Your task to perform on an android device: Open CNN.com Image 0: 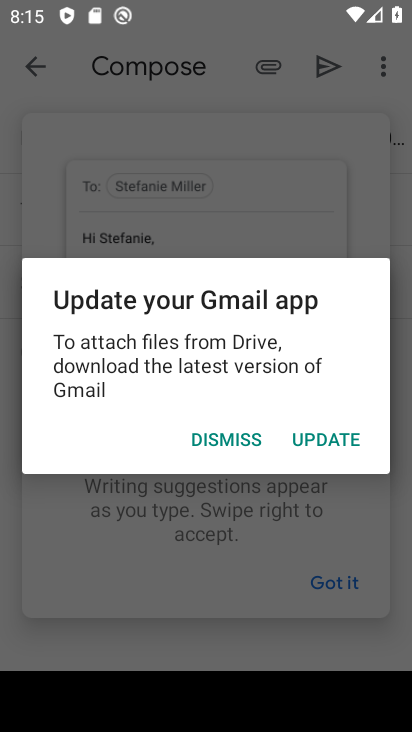
Step 0: press home button
Your task to perform on an android device: Open CNN.com Image 1: 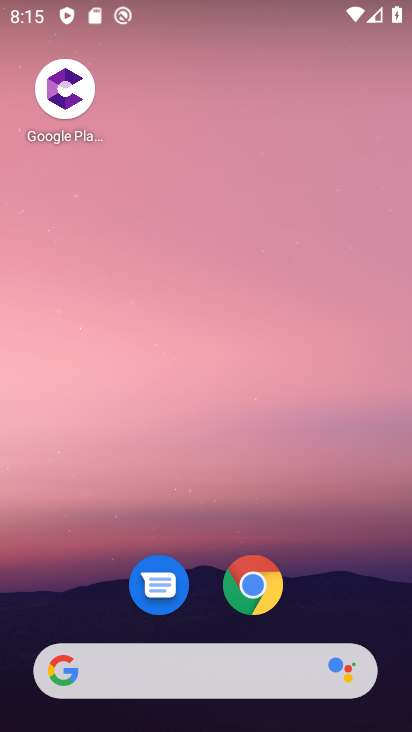
Step 1: click (248, 677)
Your task to perform on an android device: Open CNN.com Image 2: 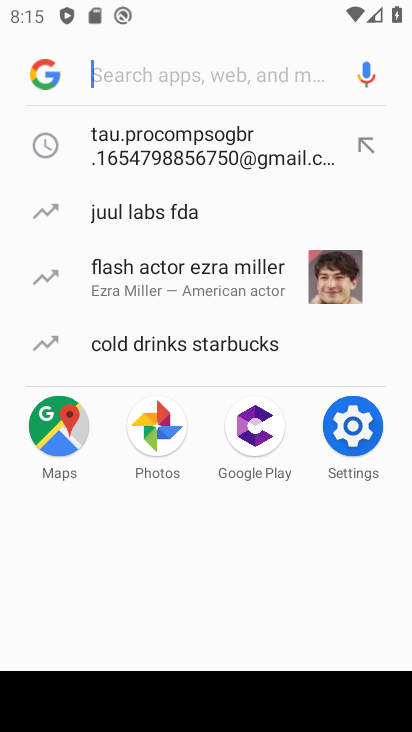
Step 2: type "cnn.com"
Your task to perform on an android device: Open CNN.com Image 3: 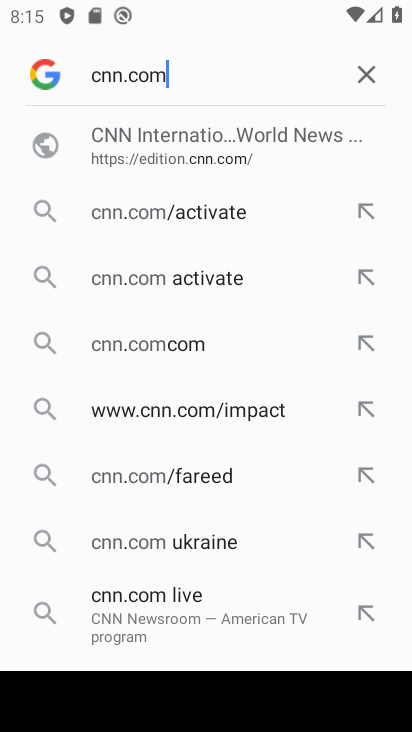
Step 3: drag from (138, 445) to (190, 177)
Your task to perform on an android device: Open CNN.com Image 4: 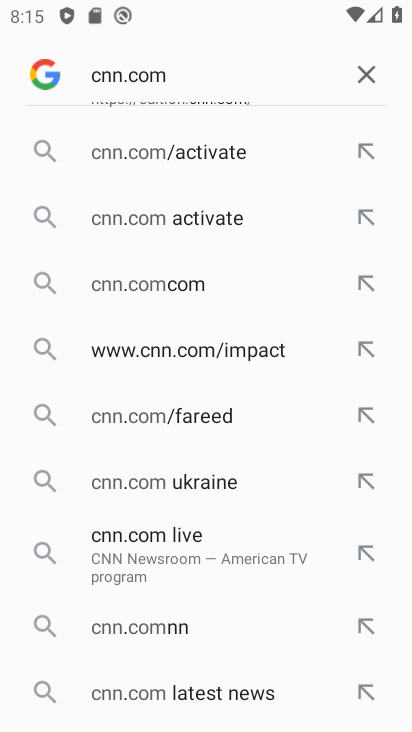
Step 4: drag from (167, 575) to (204, 292)
Your task to perform on an android device: Open CNN.com Image 5: 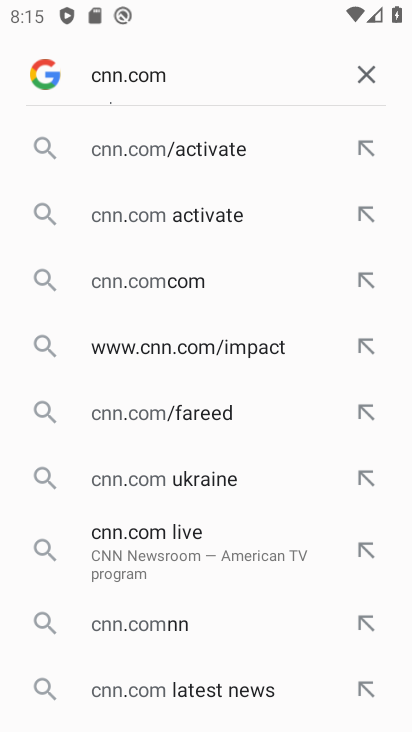
Step 5: click (138, 693)
Your task to perform on an android device: Open CNN.com Image 6: 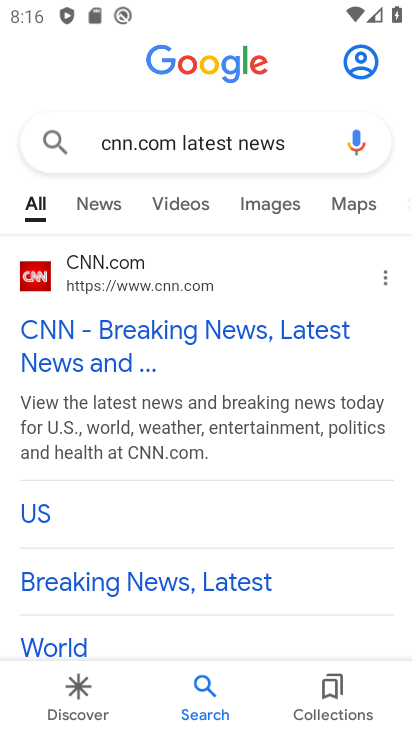
Step 6: click (187, 329)
Your task to perform on an android device: Open CNN.com Image 7: 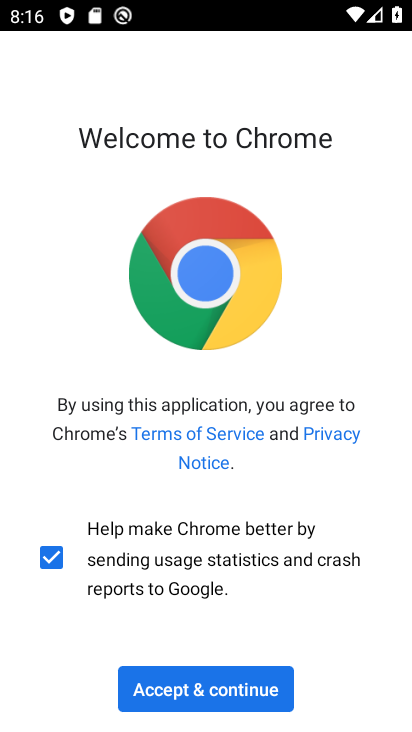
Step 7: click (238, 692)
Your task to perform on an android device: Open CNN.com Image 8: 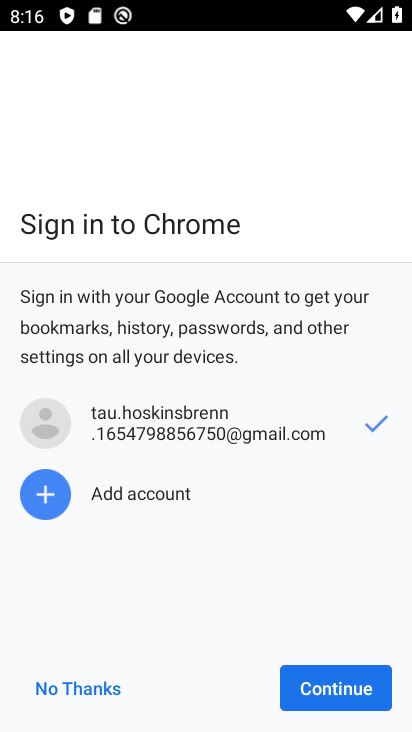
Step 8: click (326, 695)
Your task to perform on an android device: Open CNN.com Image 9: 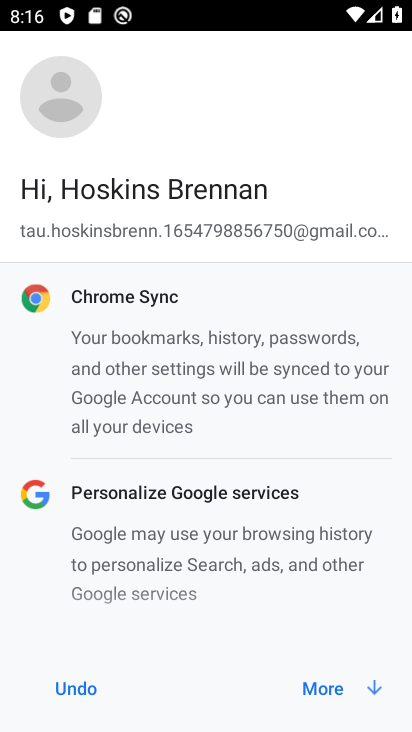
Step 9: click (331, 687)
Your task to perform on an android device: Open CNN.com Image 10: 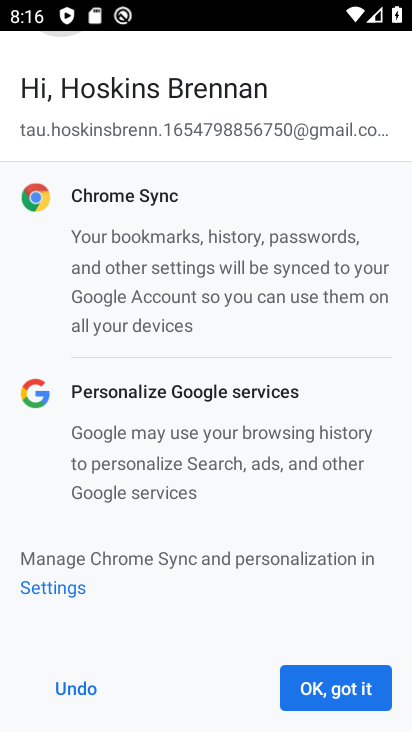
Step 10: click (331, 685)
Your task to perform on an android device: Open CNN.com Image 11: 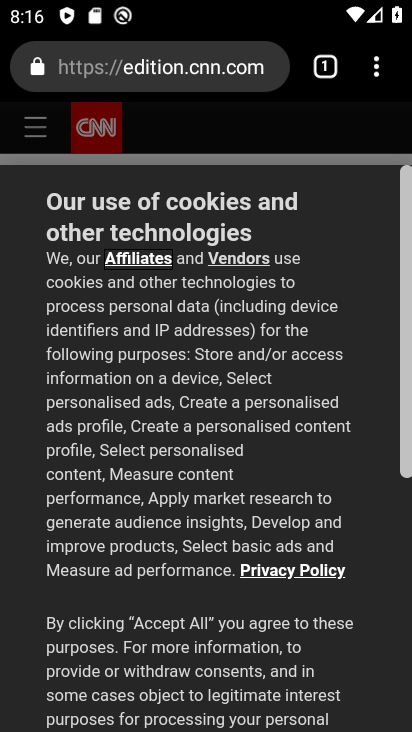
Step 11: task complete